Your task to perform on an android device: toggle notifications settings in the gmail app Image 0: 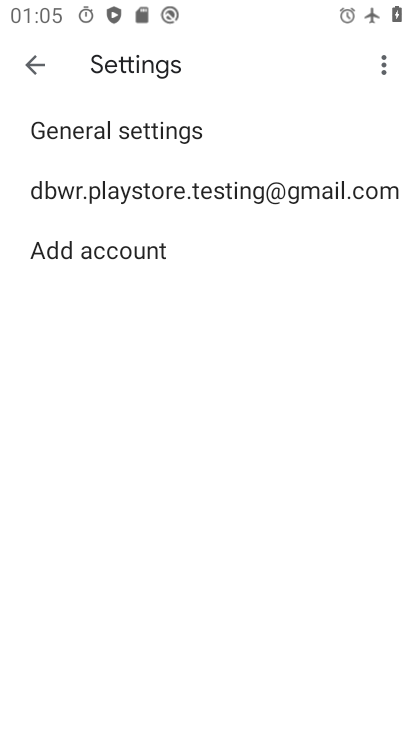
Step 0: press home button
Your task to perform on an android device: toggle notifications settings in the gmail app Image 1: 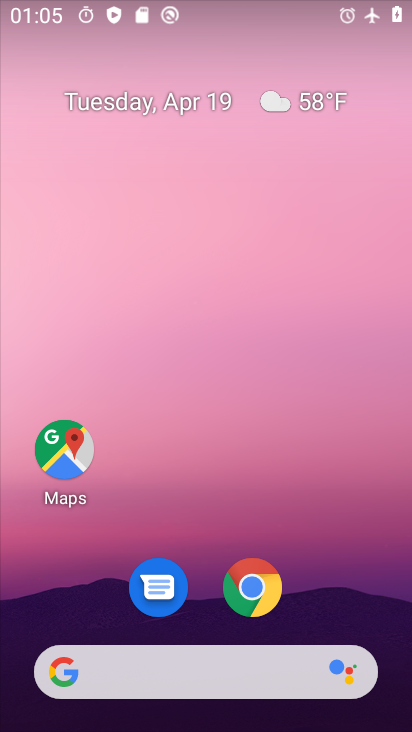
Step 1: drag from (368, 600) to (358, 164)
Your task to perform on an android device: toggle notifications settings in the gmail app Image 2: 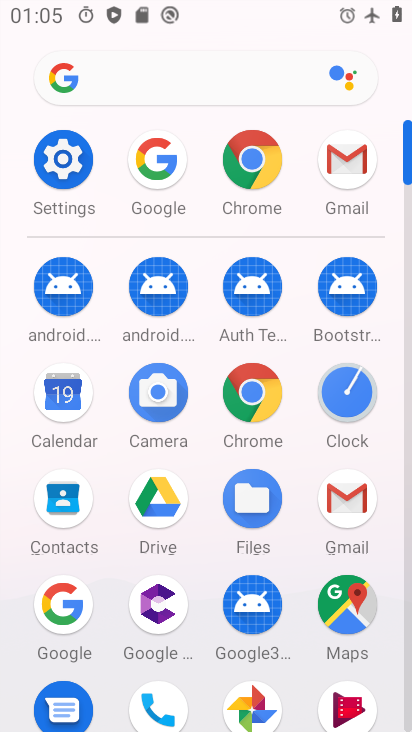
Step 2: click (345, 168)
Your task to perform on an android device: toggle notifications settings in the gmail app Image 3: 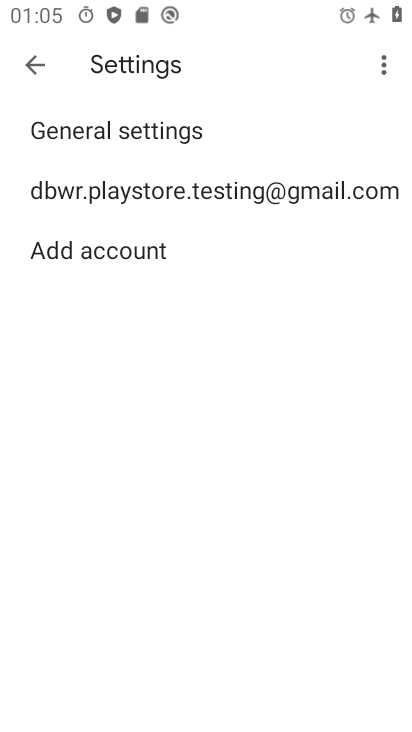
Step 3: click (308, 192)
Your task to perform on an android device: toggle notifications settings in the gmail app Image 4: 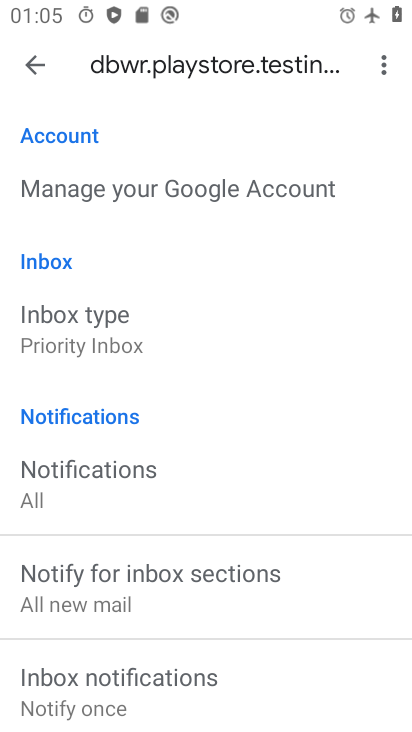
Step 4: drag from (283, 581) to (275, 358)
Your task to perform on an android device: toggle notifications settings in the gmail app Image 5: 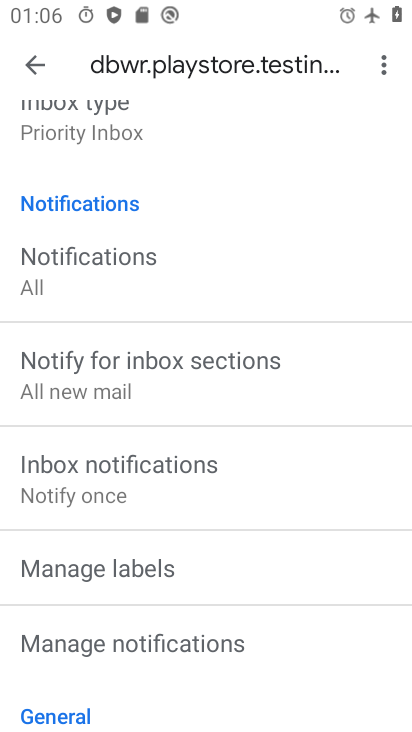
Step 5: click (83, 278)
Your task to perform on an android device: toggle notifications settings in the gmail app Image 6: 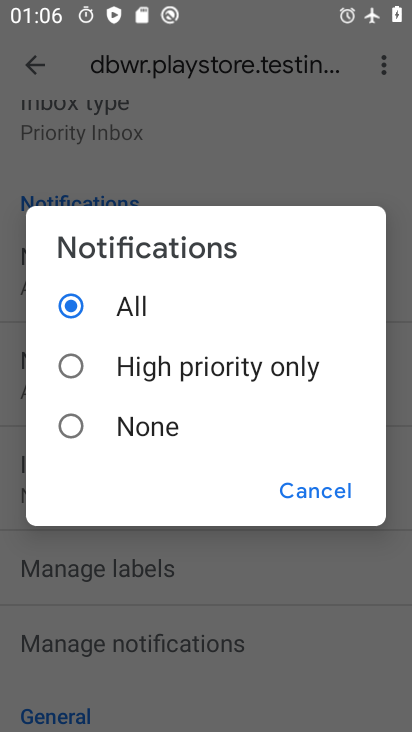
Step 6: click (70, 431)
Your task to perform on an android device: toggle notifications settings in the gmail app Image 7: 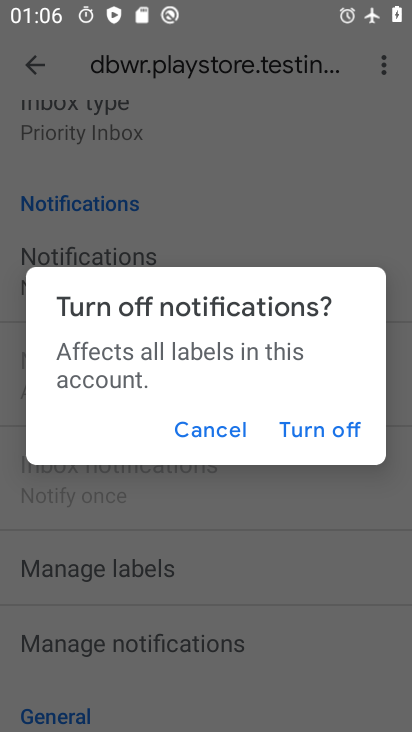
Step 7: click (319, 425)
Your task to perform on an android device: toggle notifications settings in the gmail app Image 8: 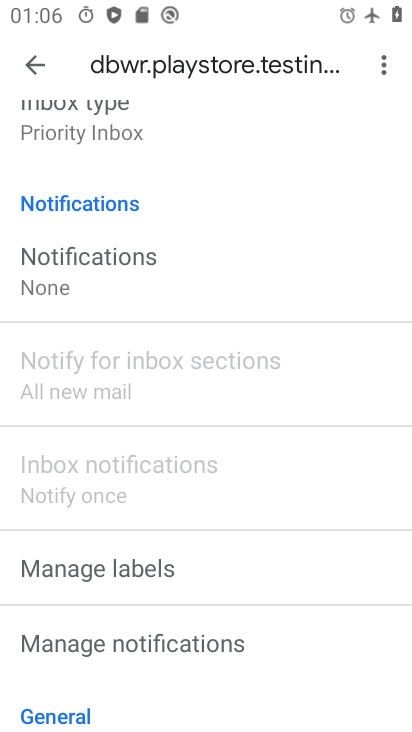
Step 8: task complete